Your task to perform on an android device: set default search engine in the chrome app Image 0: 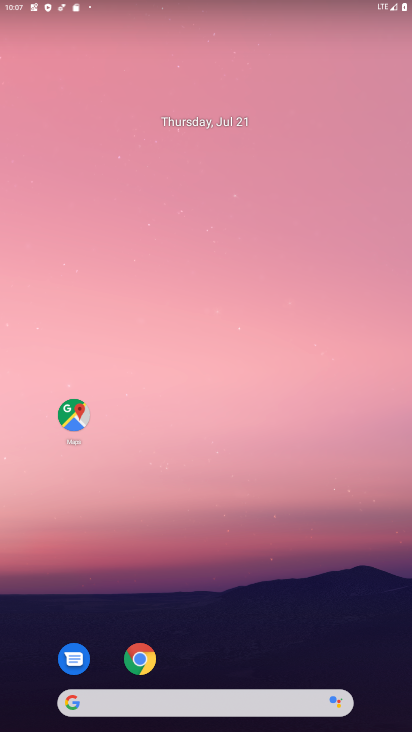
Step 0: drag from (284, 492) to (239, 30)
Your task to perform on an android device: set default search engine in the chrome app Image 1: 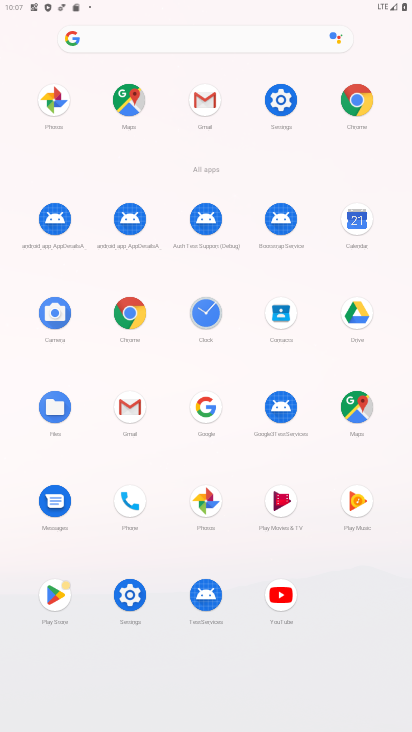
Step 1: click (357, 101)
Your task to perform on an android device: set default search engine in the chrome app Image 2: 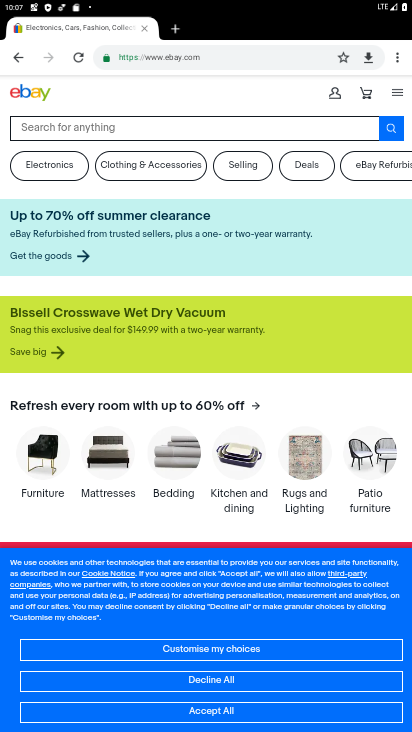
Step 2: click (398, 54)
Your task to perform on an android device: set default search engine in the chrome app Image 3: 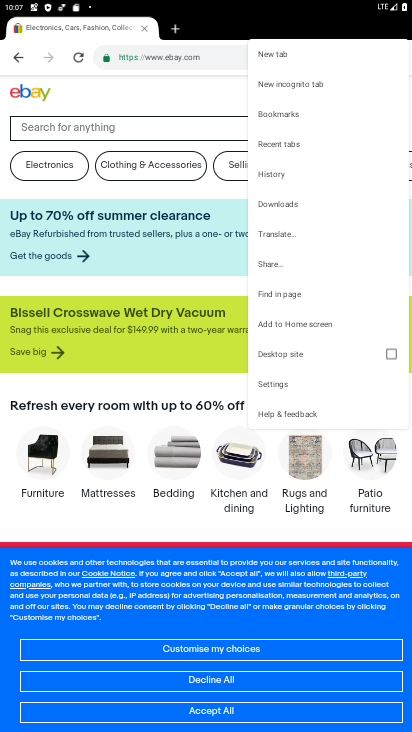
Step 3: click (285, 380)
Your task to perform on an android device: set default search engine in the chrome app Image 4: 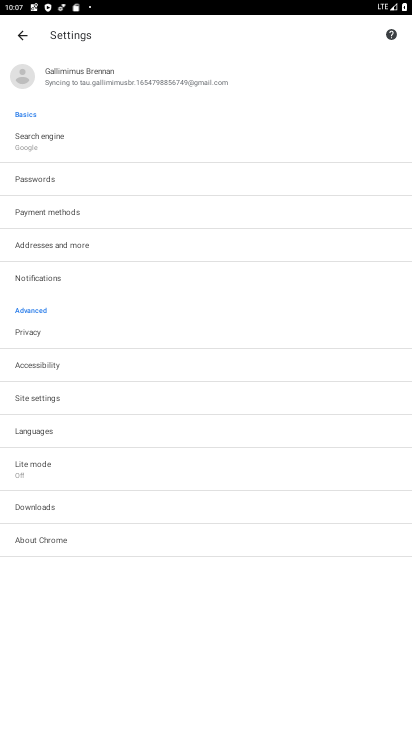
Step 4: click (84, 148)
Your task to perform on an android device: set default search engine in the chrome app Image 5: 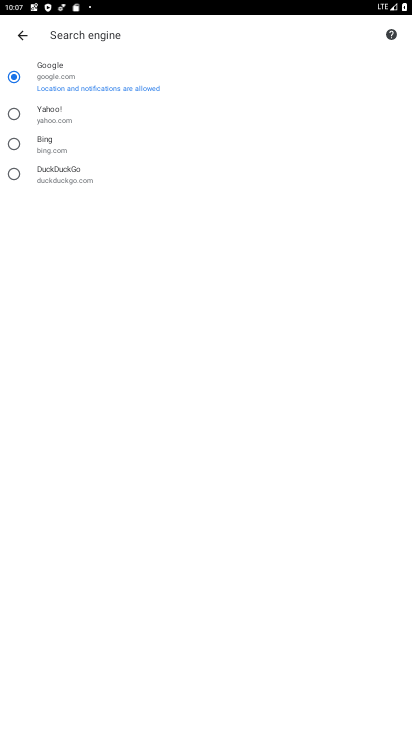
Step 5: task complete